Your task to perform on an android device: delete browsing data in the chrome app Image 0: 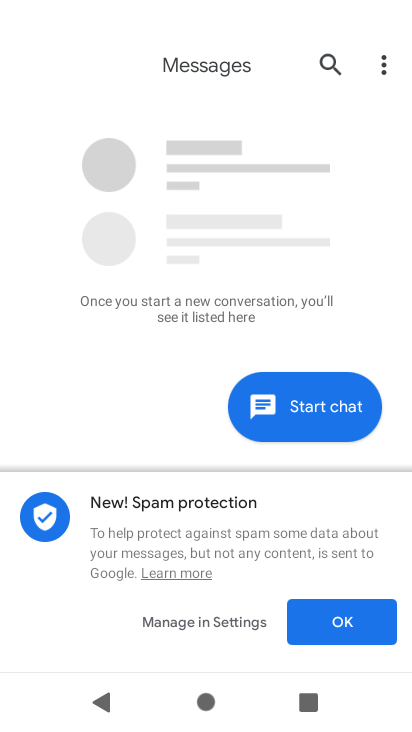
Step 0: press home button
Your task to perform on an android device: delete browsing data in the chrome app Image 1: 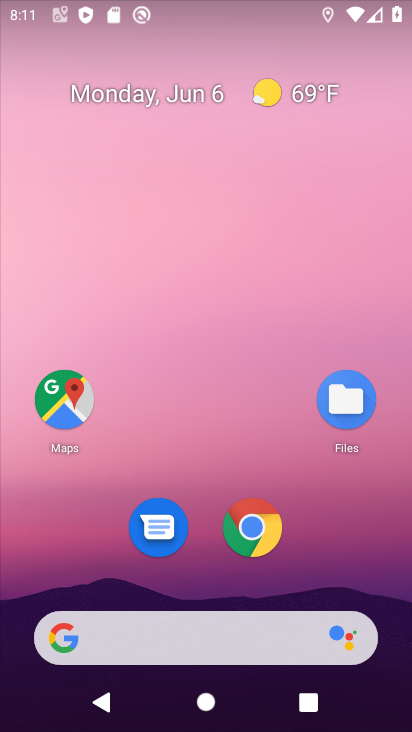
Step 1: click (258, 527)
Your task to perform on an android device: delete browsing data in the chrome app Image 2: 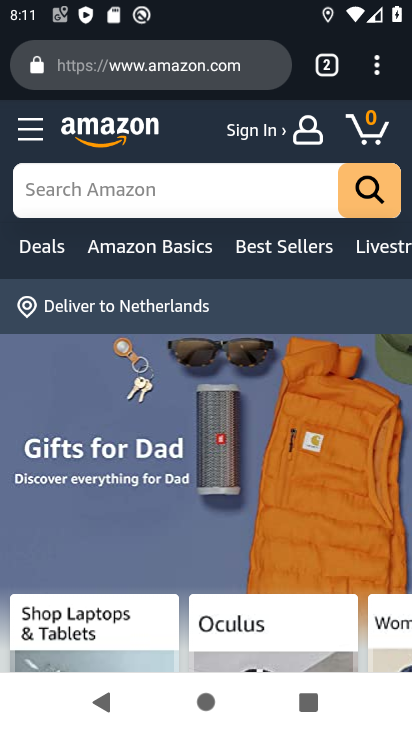
Step 2: click (370, 64)
Your task to perform on an android device: delete browsing data in the chrome app Image 3: 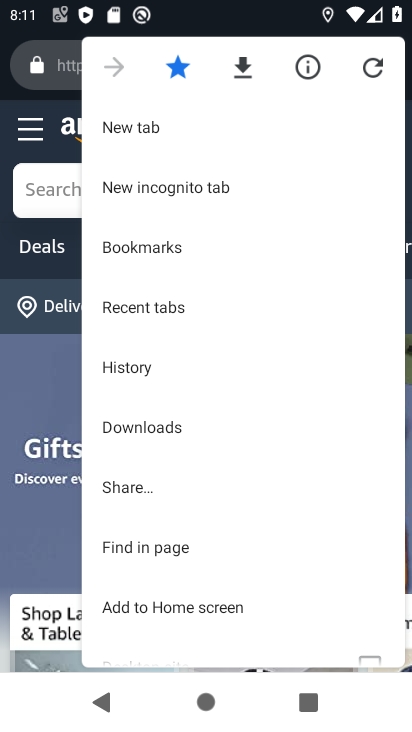
Step 3: drag from (197, 525) to (195, 254)
Your task to perform on an android device: delete browsing data in the chrome app Image 4: 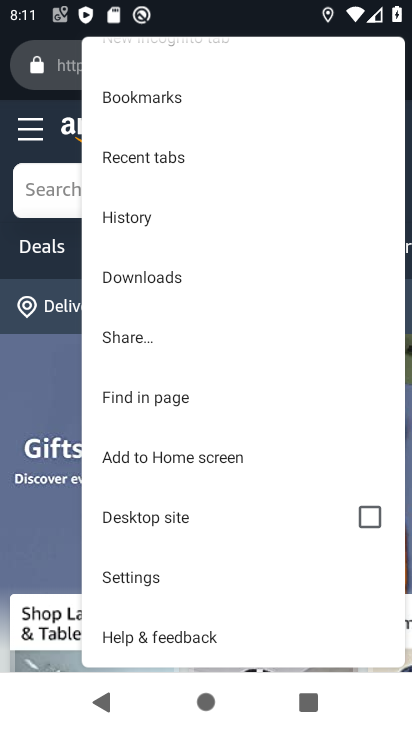
Step 4: drag from (171, 140) to (189, 337)
Your task to perform on an android device: delete browsing data in the chrome app Image 5: 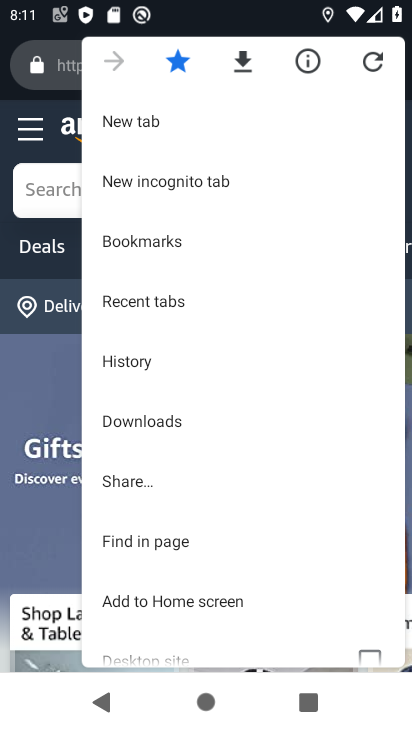
Step 5: click (147, 353)
Your task to perform on an android device: delete browsing data in the chrome app Image 6: 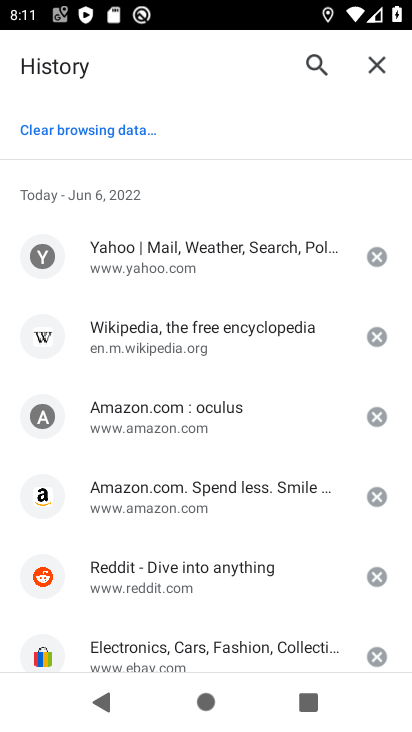
Step 6: click (147, 134)
Your task to perform on an android device: delete browsing data in the chrome app Image 7: 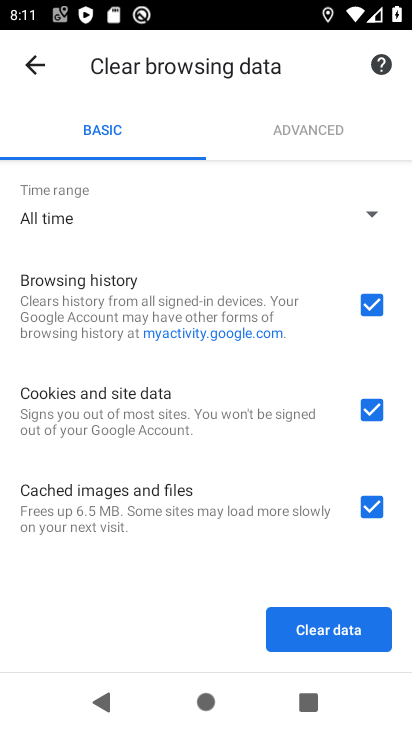
Step 7: click (369, 417)
Your task to perform on an android device: delete browsing data in the chrome app Image 8: 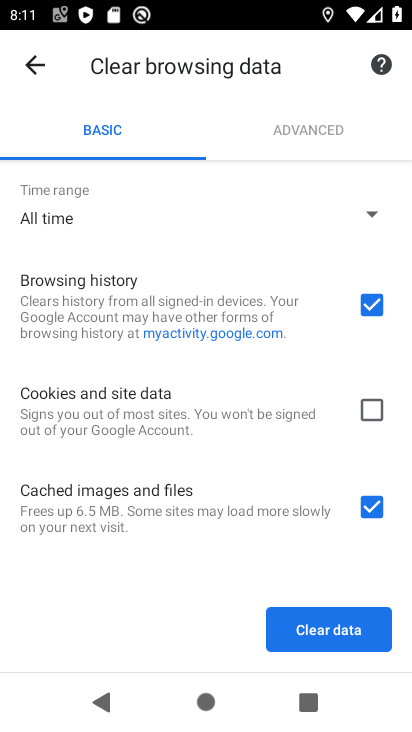
Step 8: click (369, 516)
Your task to perform on an android device: delete browsing data in the chrome app Image 9: 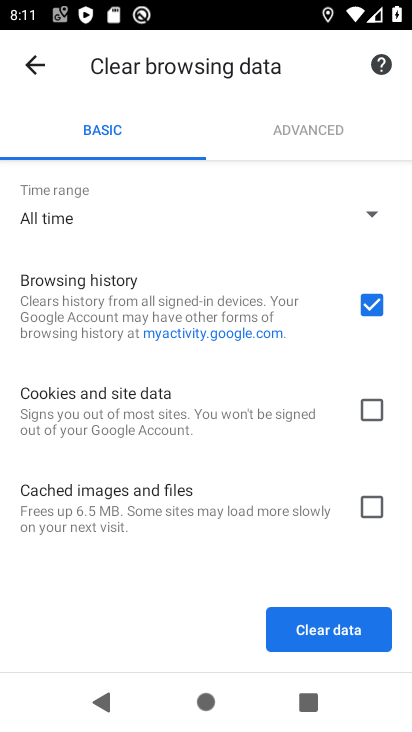
Step 9: click (371, 413)
Your task to perform on an android device: delete browsing data in the chrome app Image 10: 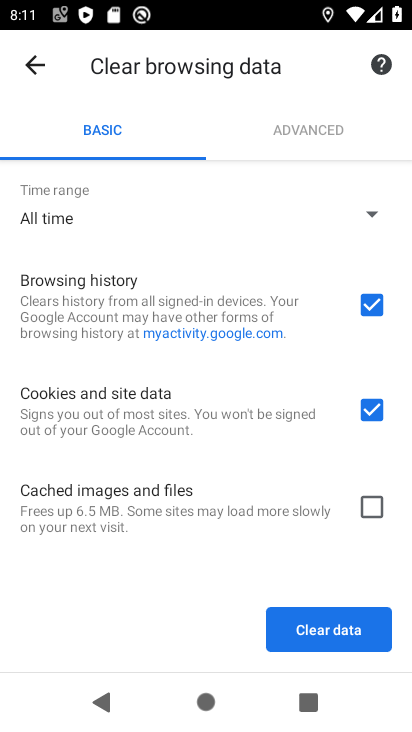
Step 10: click (371, 514)
Your task to perform on an android device: delete browsing data in the chrome app Image 11: 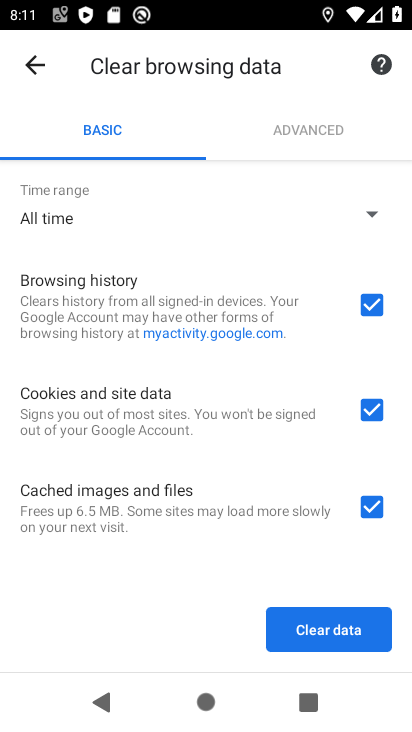
Step 11: click (334, 629)
Your task to perform on an android device: delete browsing data in the chrome app Image 12: 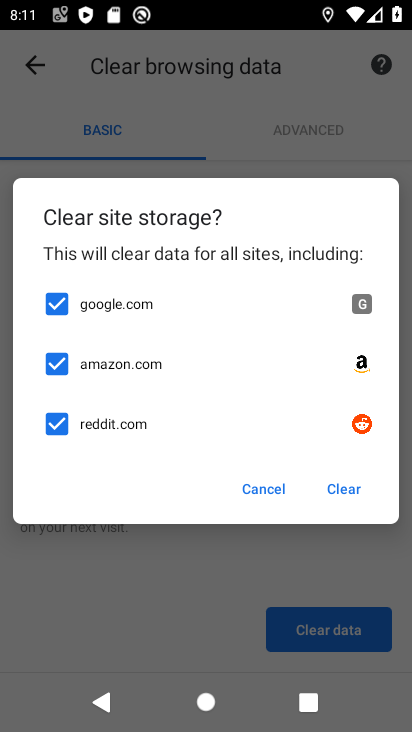
Step 12: click (343, 497)
Your task to perform on an android device: delete browsing data in the chrome app Image 13: 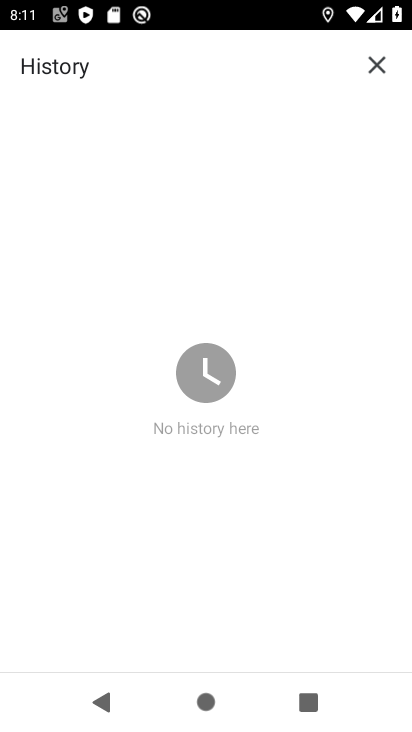
Step 13: task complete